Your task to perform on an android device: turn off notifications settings in the gmail app Image 0: 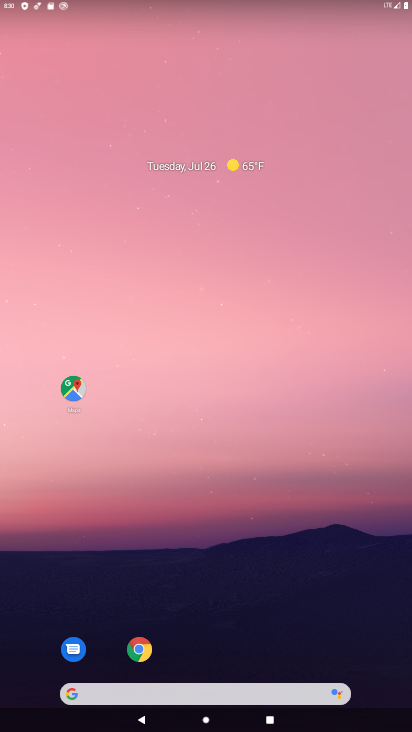
Step 0: drag from (184, 692) to (207, 88)
Your task to perform on an android device: turn off notifications settings in the gmail app Image 1: 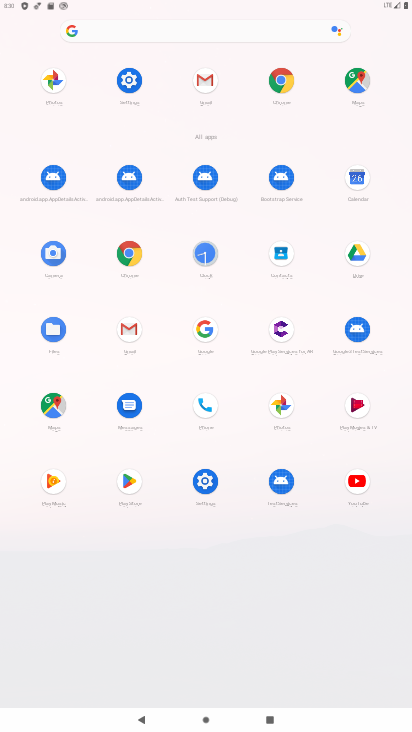
Step 1: click (204, 79)
Your task to perform on an android device: turn off notifications settings in the gmail app Image 2: 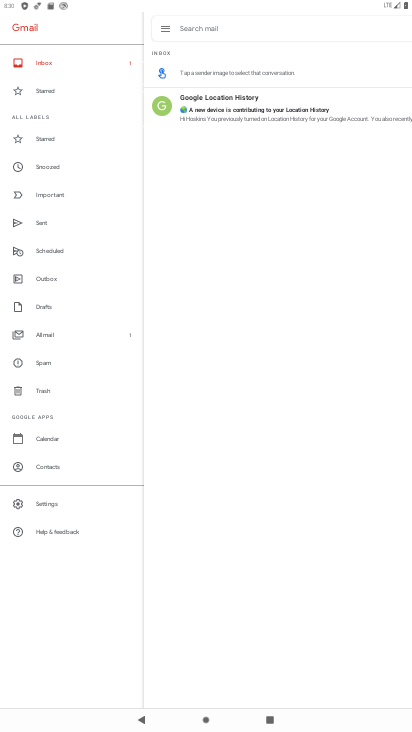
Step 2: click (53, 503)
Your task to perform on an android device: turn off notifications settings in the gmail app Image 3: 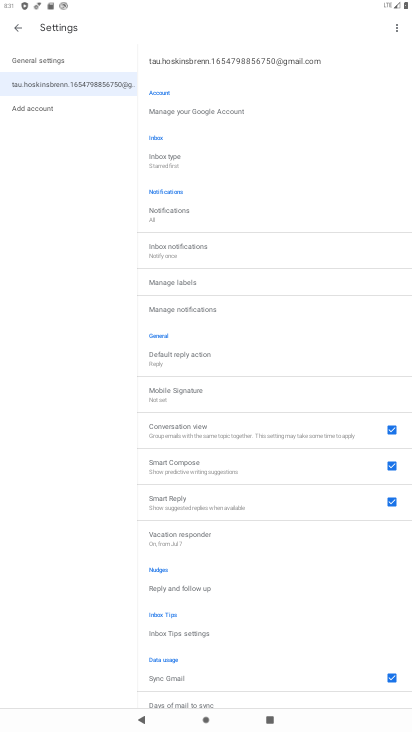
Step 3: click (167, 307)
Your task to perform on an android device: turn off notifications settings in the gmail app Image 4: 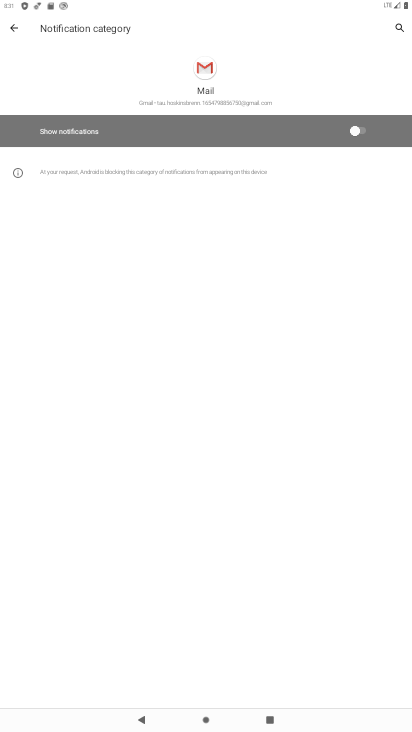
Step 4: task complete